Your task to perform on an android device: Go to wifi settings Image 0: 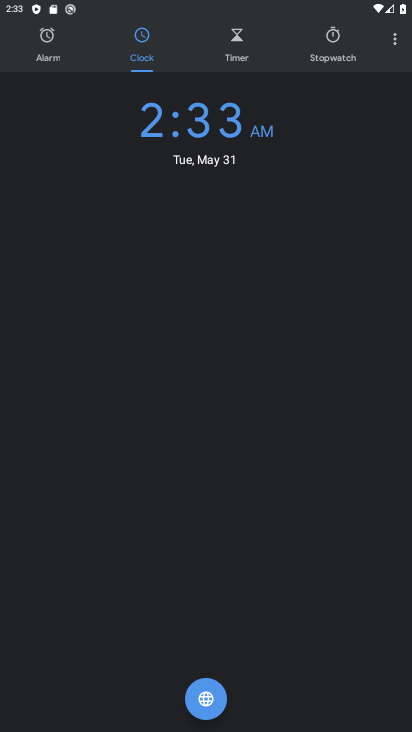
Step 0: press home button
Your task to perform on an android device: Go to wifi settings Image 1: 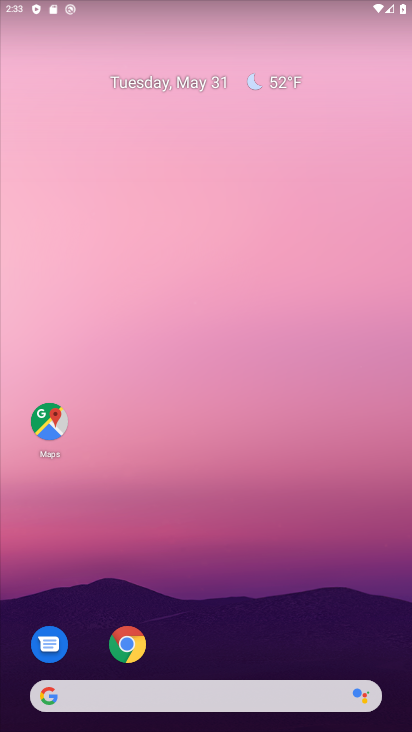
Step 1: drag from (237, 595) to (239, 63)
Your task to perform on an android device: Go to wifi settings Image 2: 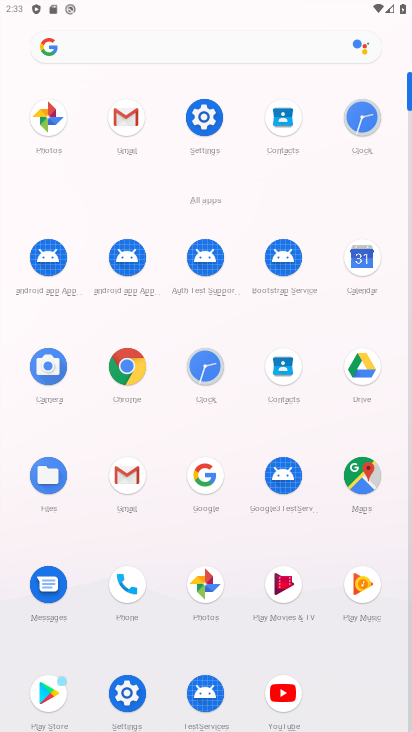
Step 2: click (209, 115)
Your task to perform on an android device: Go to wifi settings Image 3: 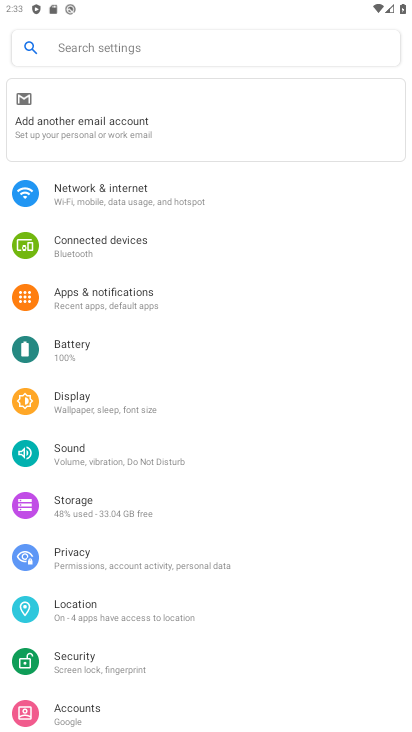
Step 3: click (115, 198)
Your task to perform on an android device: Go to wifi settings Image 4: 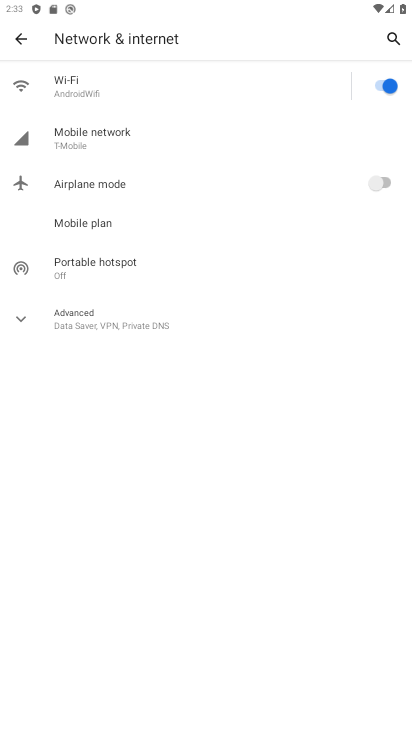
Step 4: click (127, 91)
Your task to perform on an android device: Go to wifi settings Image 5: 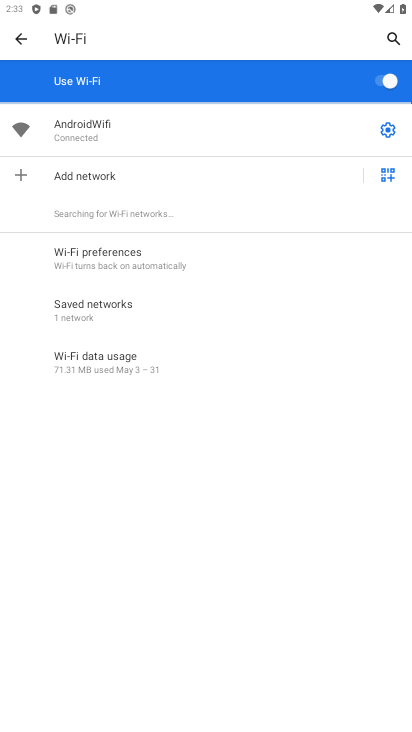
Step 5: click (383, 127)
Your task to perform on an android device: Go to wifi settings Image 6: 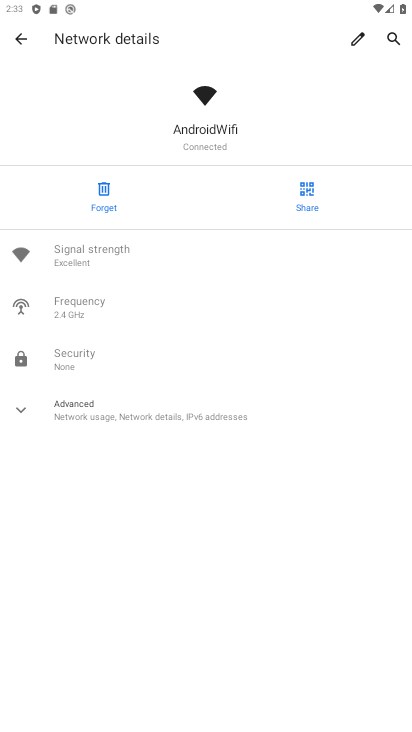
Step 6: task complete